Your task to perform on an android device: Go to battery settings Image 0: 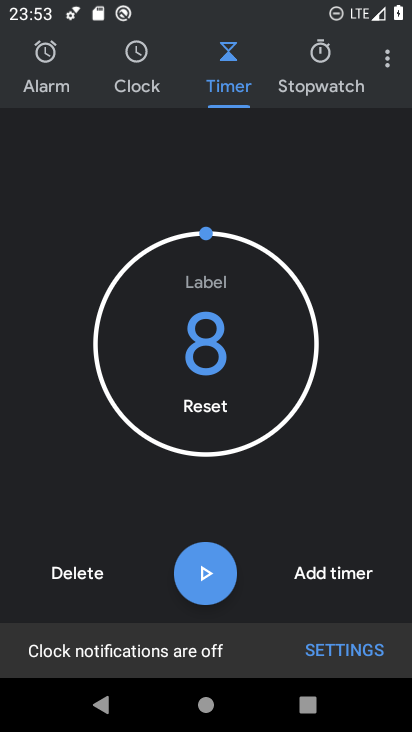
Step 0: press home button
Your task to perform on an android device: Go to battery settings Image 1: 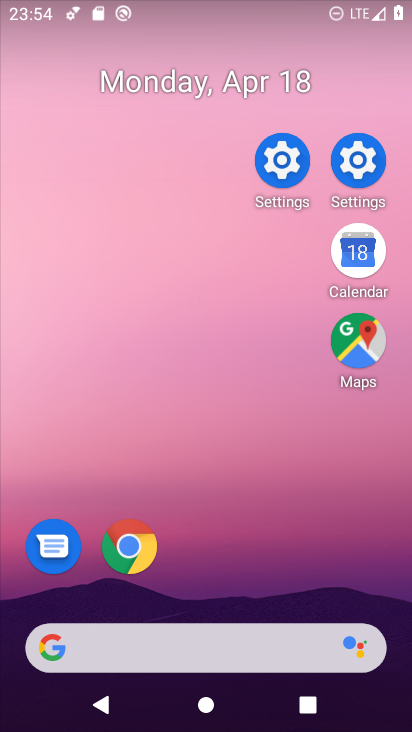
Step 1: drag from (211, 421) to (223, 265)
Your task to perform on an android device: Go to battery settings Image 2: 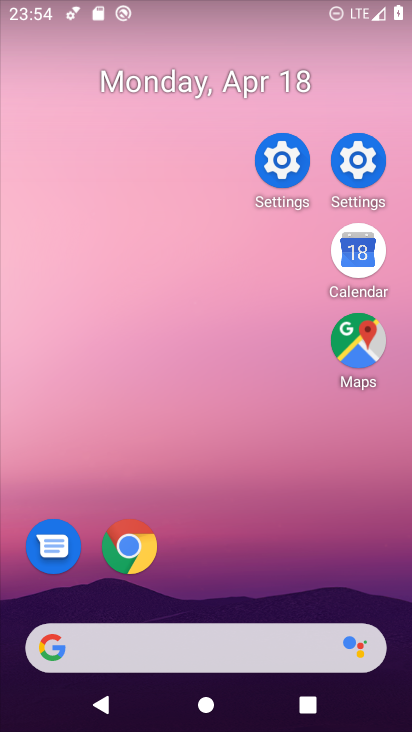
Step 2: drag from (302, 588) to (61, 168)
Your task to perform on an android device: Go to battery settings Image 3: 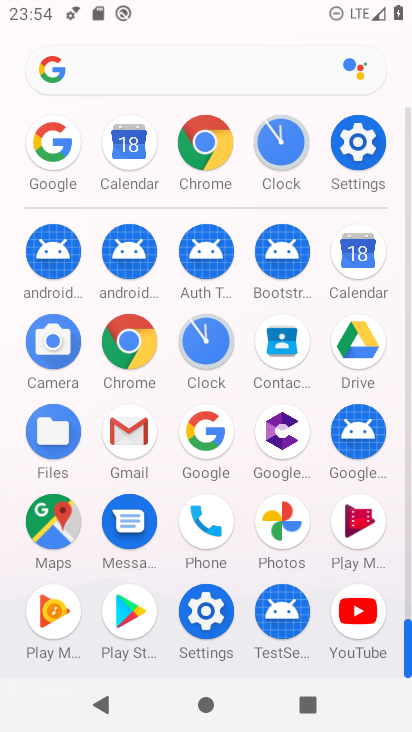
Step 3: click (351, 139)
Your task to perform on an android device: Go to battery settings Image 4: 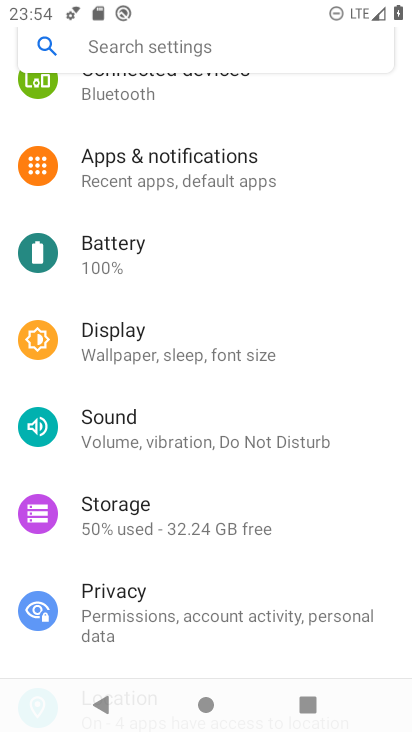
Step 4: click (110, 254)
Your task to perform on an android device: Go to battery settings Image 5: 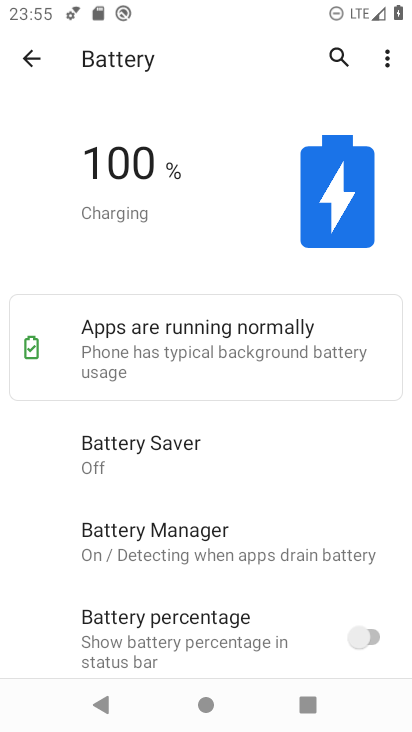
Step 5: task complete